Your task to perform on an android device: turn pop-ups off in chrome Image 0: 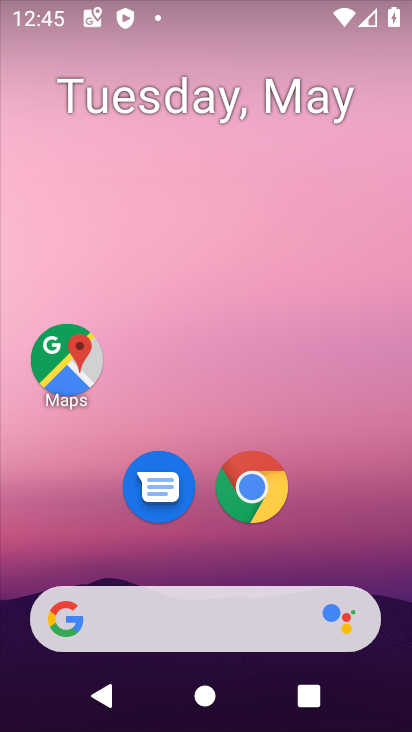
Step 0: click (253, 482)
Your task to perform on an android device: turn pop-ups off in chrome Image 1: 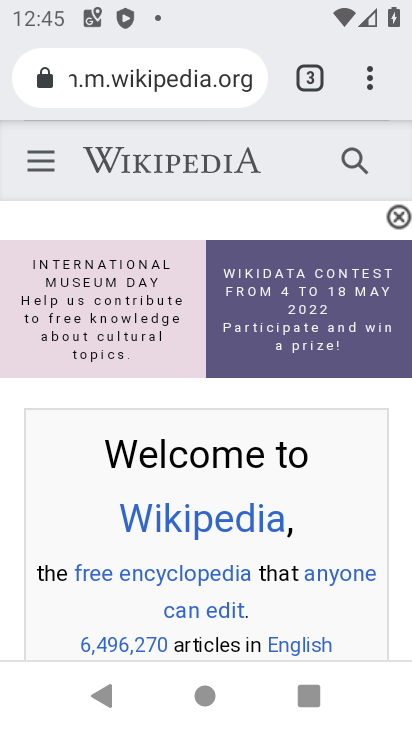
Step 1: click (371, 66)
Your task to perform on an android device: turn pop-ups off in chrome Image 2: 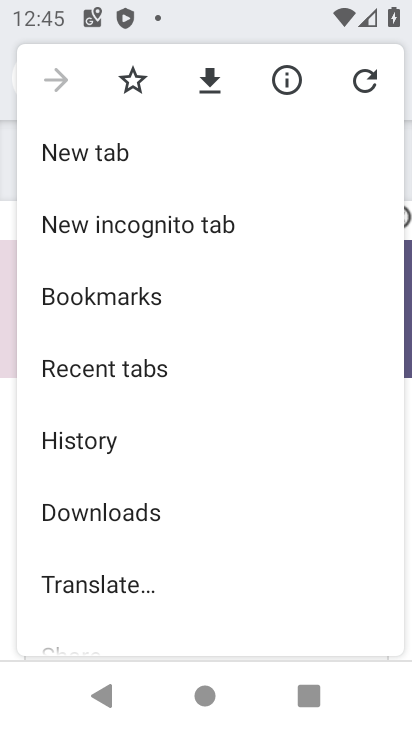
Step 2: drag from (212, 578) to (210, 177)
Your task to perform on an android device: turn pop-ups off in chrome Image 3: 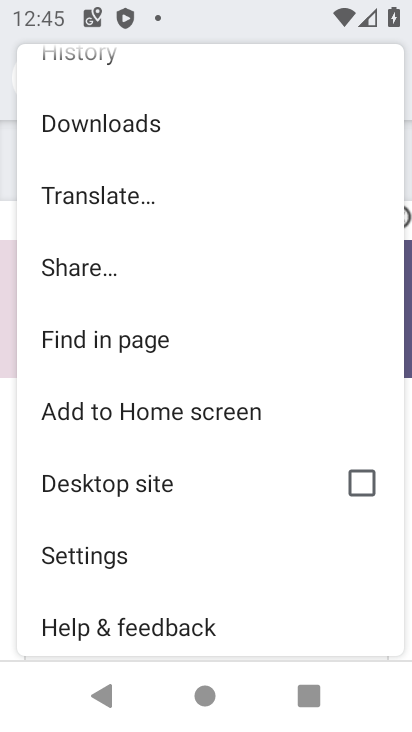
Step 3: click (80, 565)
Your task to perform on an android device: turn pop-ups off in chrome Image 4: 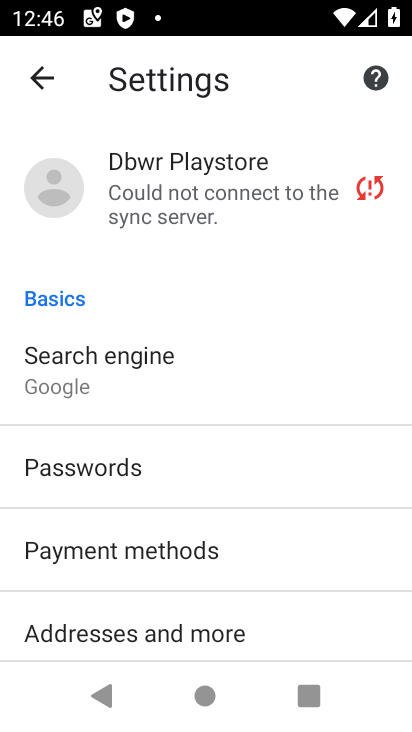
Step 4: drag from (277, 592) to (286, 220)
Your task to perform on an android device: turn pop-ups off in chrome Image 5: 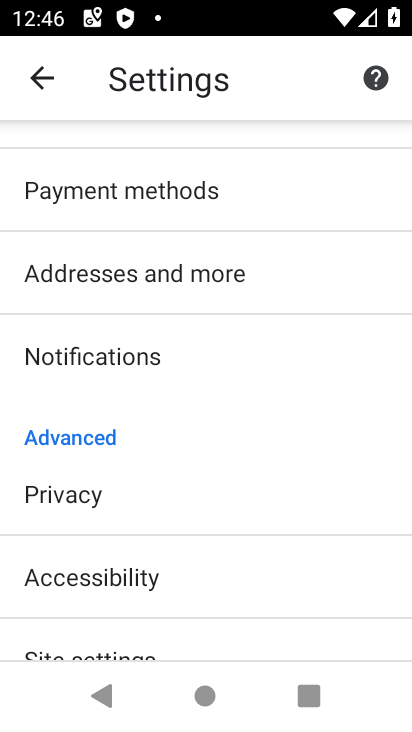
Step 5: drag from (223, 578) to (268, 367)
Your task to perform on an android device: turn pop-ups off in chrome Image 6: 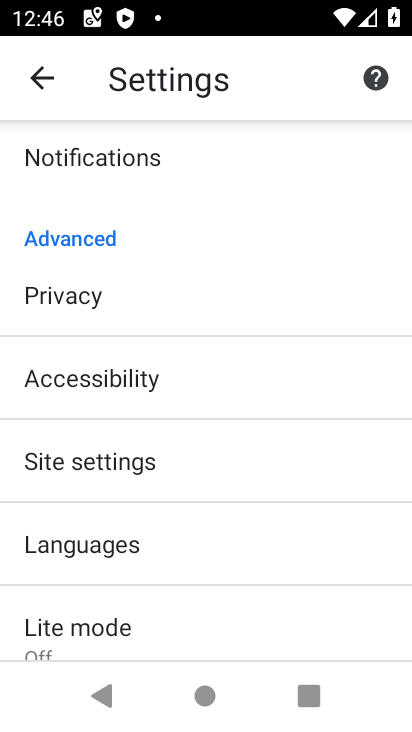
Step 6: click (144, 463)
Your task to perform on an android device: turn pop-ups off in chrome Image 7: 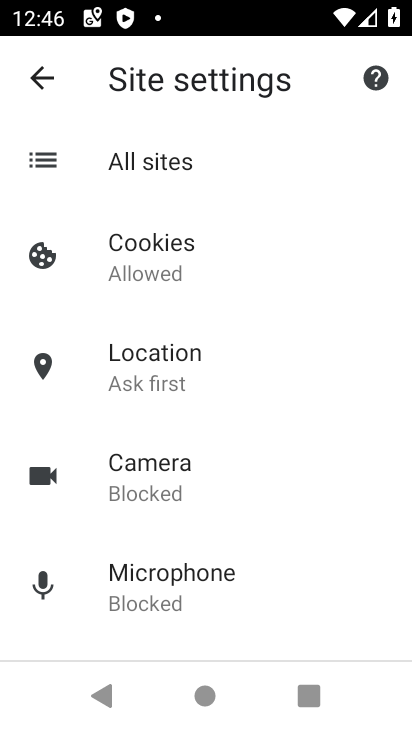
Step 7: drag from (222, 505) to (205, 188)
Your task to perform on an android device: turn pop-ups off in chrome Image 8: 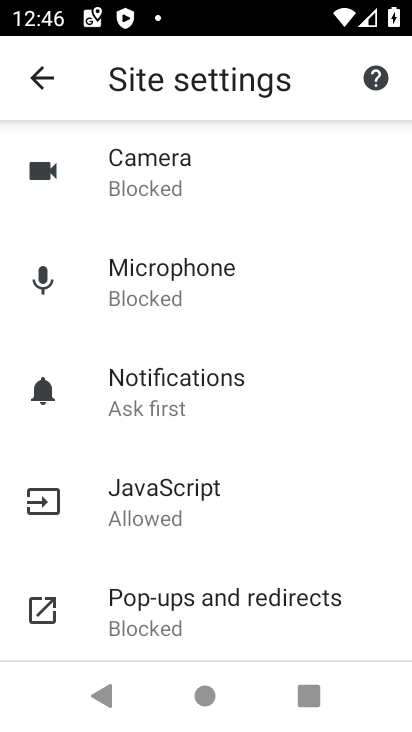
Step 8: click (166, 590)
Your task to perform on an android device: turn pop-ups off in chrome Image 9: 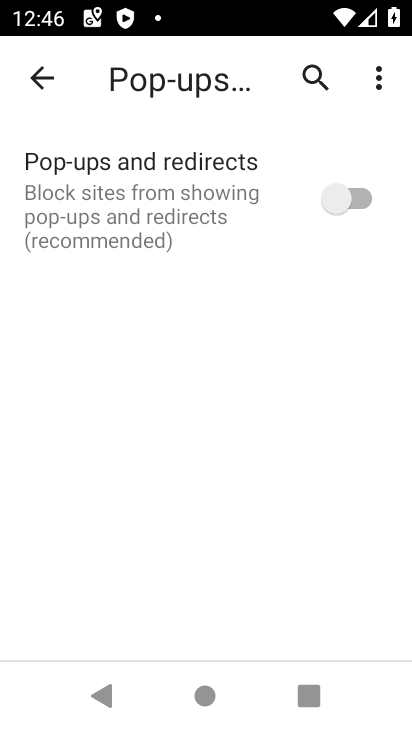
Step 9: task complete